Your task to perform on an android device: turn vacation reply on in the gmail app Image 0: 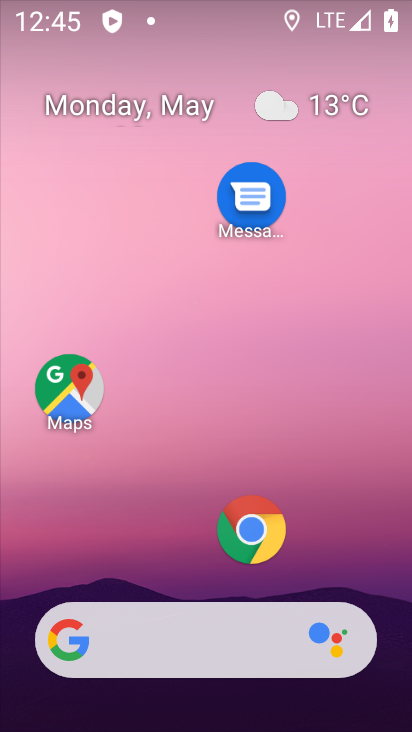
Step 0: drag from (106, 549) to (193, 153)
Your task to perform on an android device: turn vacation reply on in the gmail app Image 1: 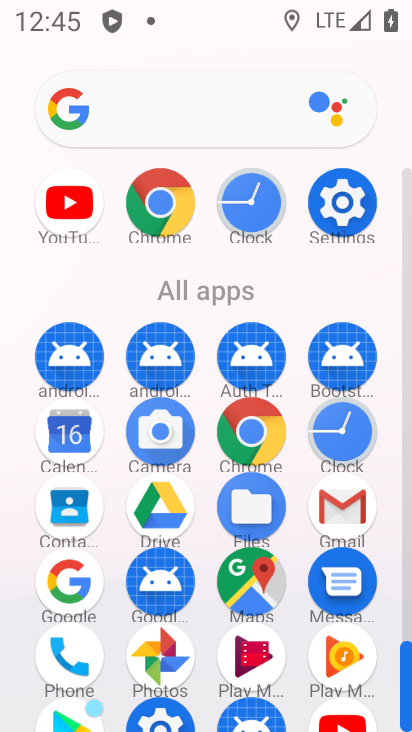
Step 1: click (333, 492)
Your task to perform on an android device: turn vacation reply on in the gmail app Image 2: 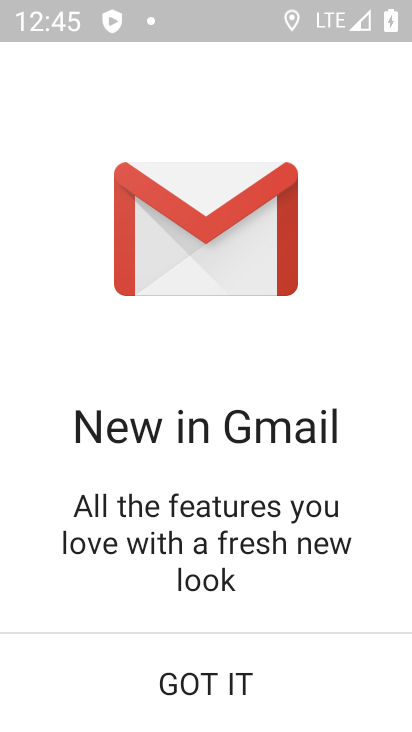
Step 2: click (178, 675)
Your task to perform on an android device: turn vacation reply on in the gmail app Image 3: 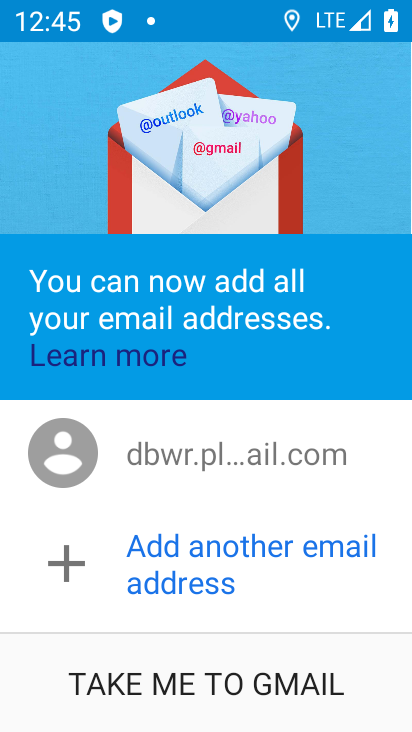
Step 3: click (217, 699)
Your task to perform on an android device: turn vacation reply on in the gmail app Image 4: 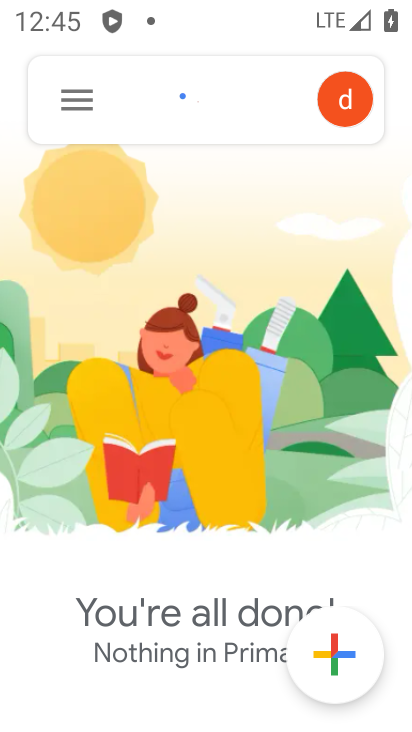
Step 4: click (84, 109)
Your task to perform on an android device: turn vacation reply on in the gmail app Image 5: 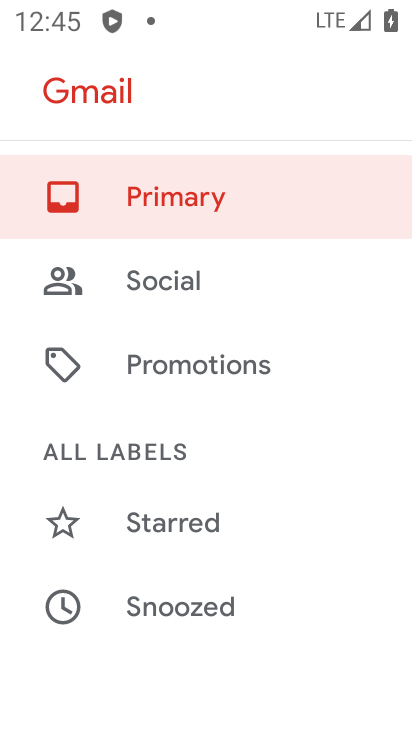
Step 5: drag from (235, 603) to (304, 144)
Your task to perform on an android device: turn vacation reply on in the gmail app Image 6: 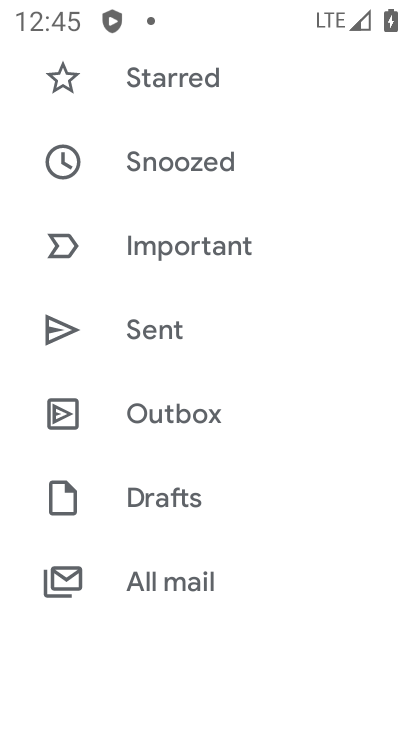
Step 6: drag from (148, 560) to (250, 171)
Your task to perform on an android device: turn vacation reply on in the gmail app Image 7: 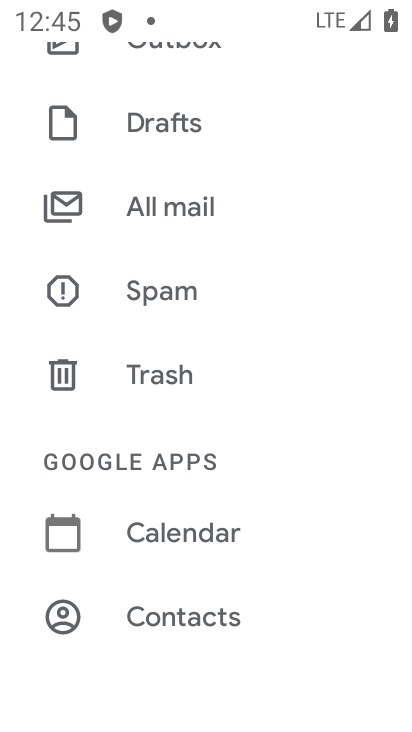
Step 7: drag from (208, 546) to (277, 221)
Your task to perform on an android device: turn vacation reply on in the gmail app Image 8: 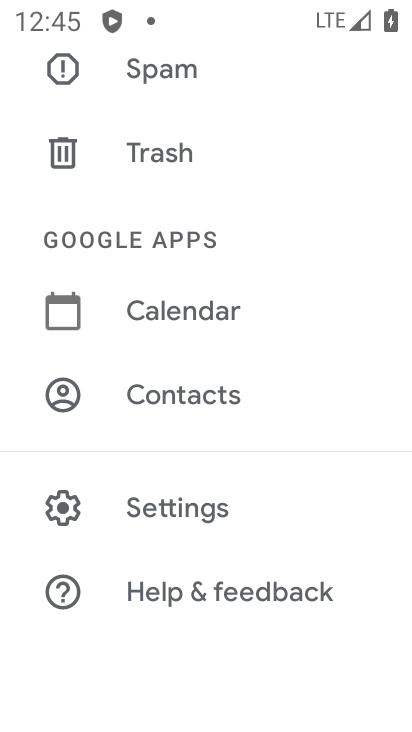
Step 8: click (201, 519)
Your task to perform on an android device: turn vacation reply on in the gmail app Image 9: 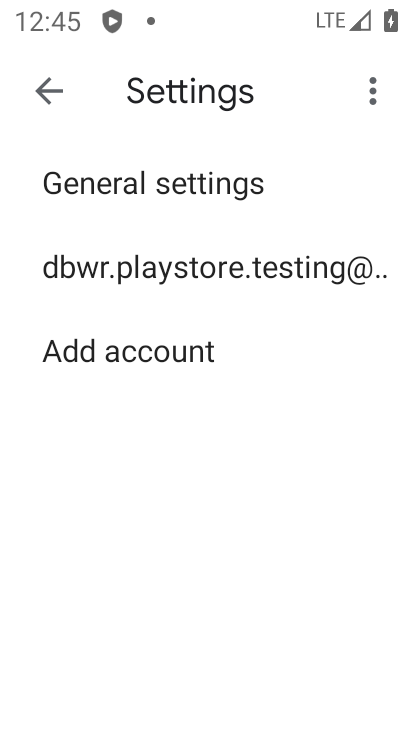
Step 9: click (249, 266)
Your task to perform on an android device: turn vacation reply on in the gmail app Image 10: 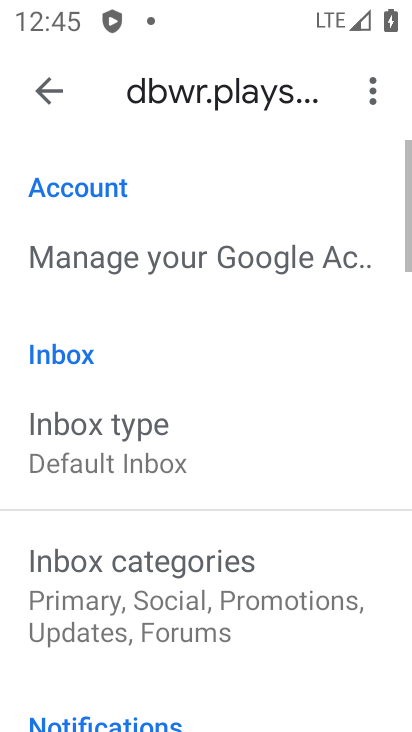
Step 10: drag from (205, 696) to (271, 225)
Your task to perform on an android device: turn vacation reply on in the gmail app Image 11: 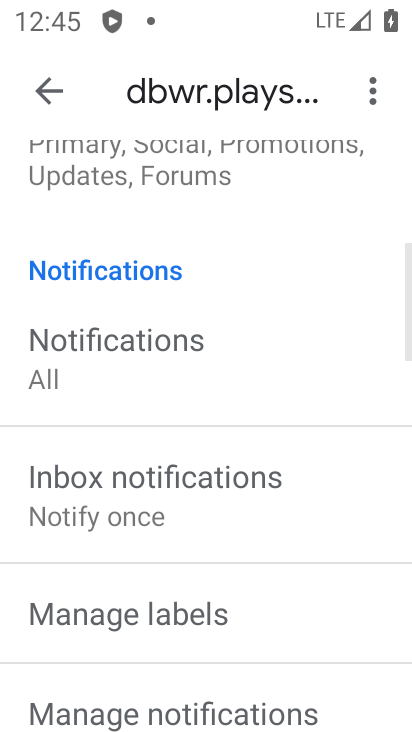
Step 11: drag from (144, 651) to (226, 200)
Your task to perform on an android device: turn vacation reply on in the gmail app Image 12: 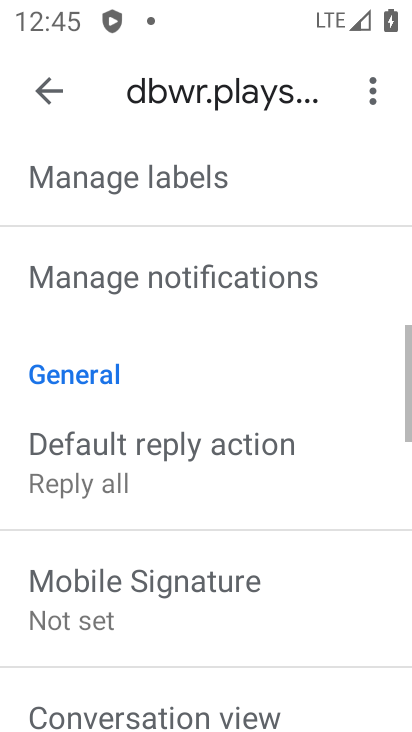
Step 12: drag from (181, 687) to (261, 312)
Your task to perform on an android device: turn vacation reply on in the gmail app Image 13: 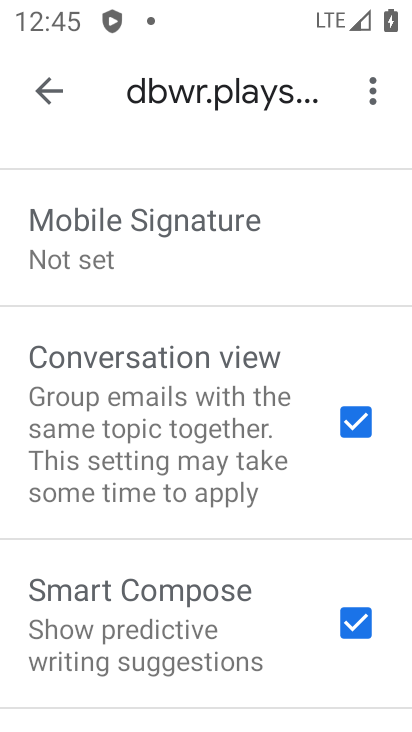
Step 13: drag from (168, 650) to (235, 249)
Your task to perform on an android device: turn vacation reply on in the gmail app Image 14: 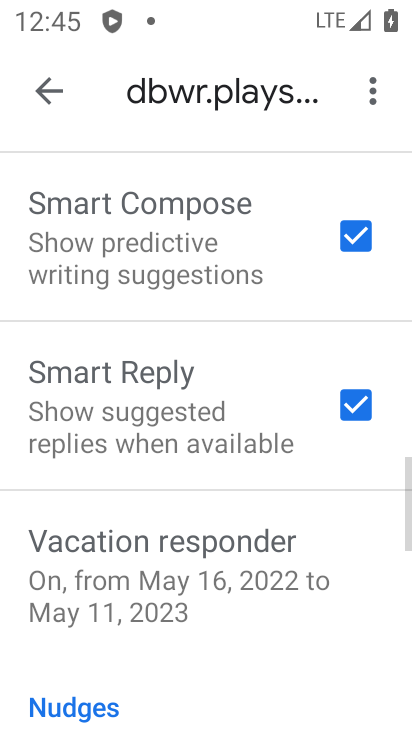
Step 14: click (170, 592)
Your task to perform on an android device: turn vacation reply on in the gmail app Image 15: 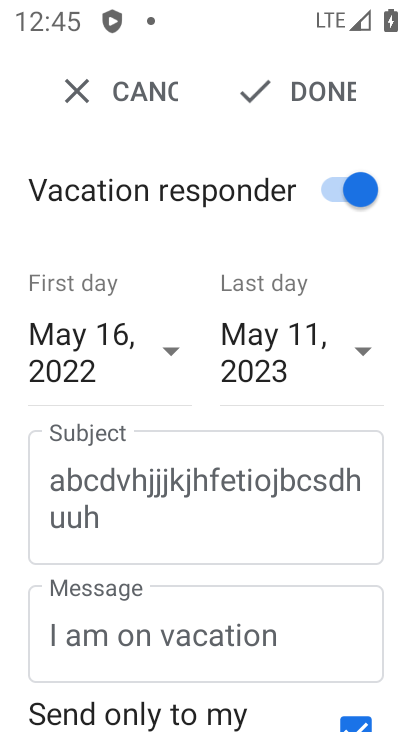
Step 15: task complete